Your task to perform on an android device: Open calendar and show me the second week of next month Image 0: 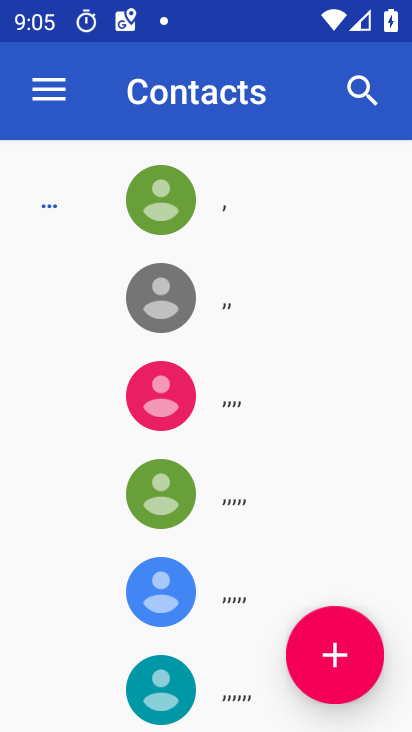
Step 0: press home button
Your task to perform on an android device: Open calendar and show me the second week of next month Image 1: 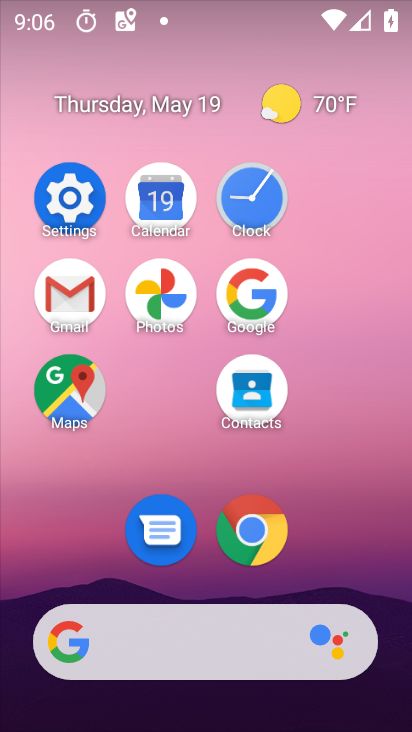
Step 1: click (152, 219)
Your task to perform on an android device: Open calendar and show me the second week of next month Image 2: 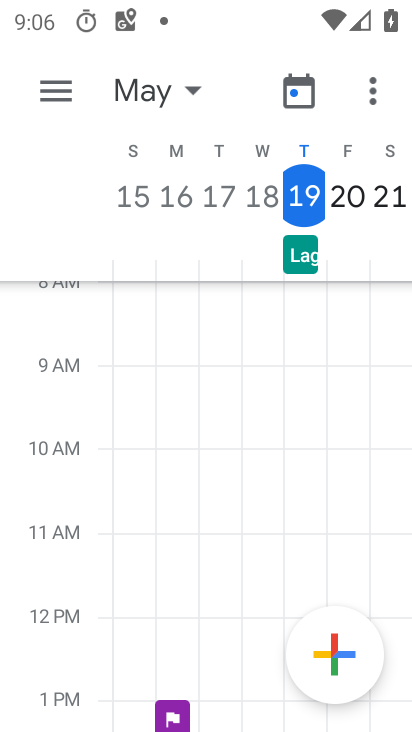
Step 2: click (60, 105)
Your task to perform on an android device: Open calendar and show me the second week of next month Image 3: 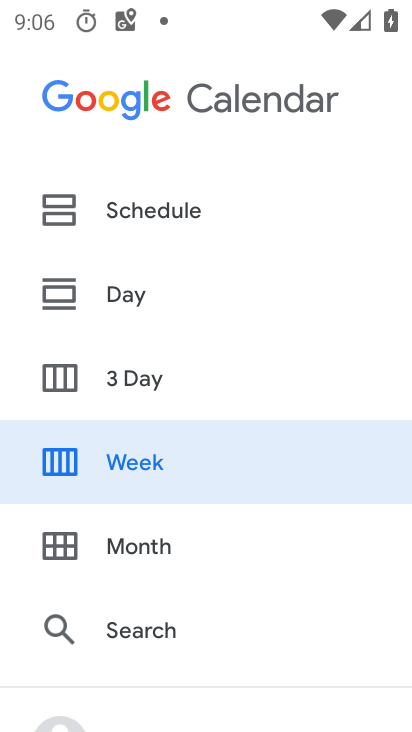
Step 3: click (228, 444)
Your task to perform on an android device: Open calendar and show me the second week of next month Image 4: 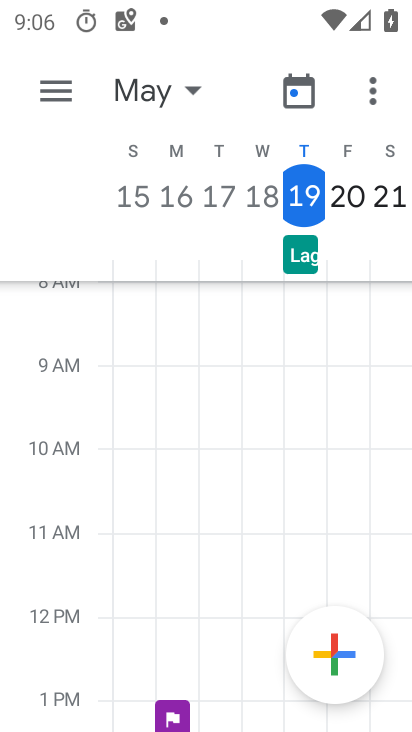
Step 4: click (180, 95)
Your task to perform on an android device: Open calendar and show me the second week of next month Image 5: 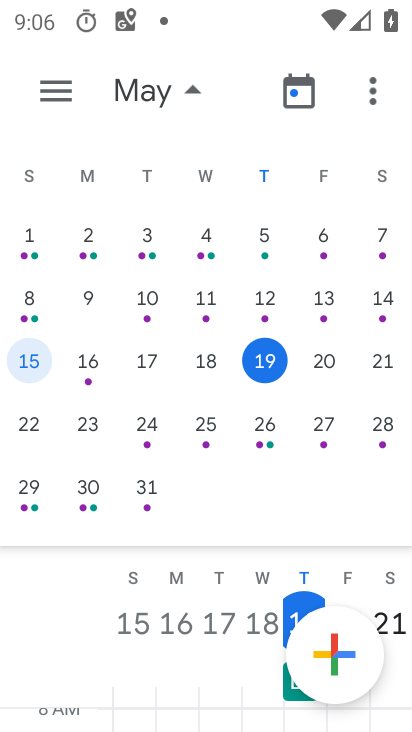
Step 5: drag from (369, 333) to (6, 257)
Your task to perform on an android device: Open calendar and show me the second week of next month Image 6: 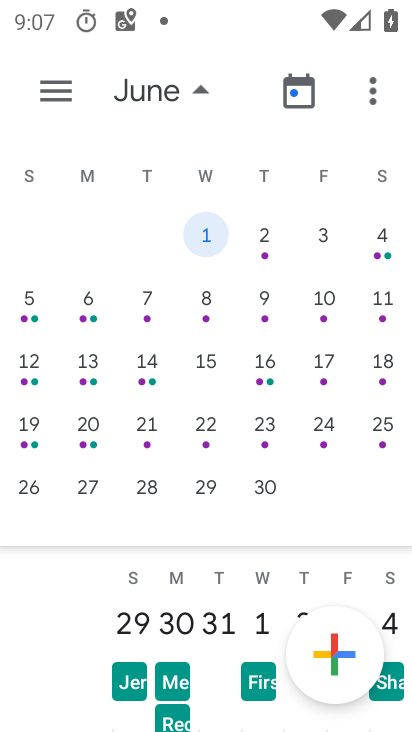
Step 6: click (70, 95)
Your task to perform on an android device: Open calendar and show me the second week of next month Image 7: 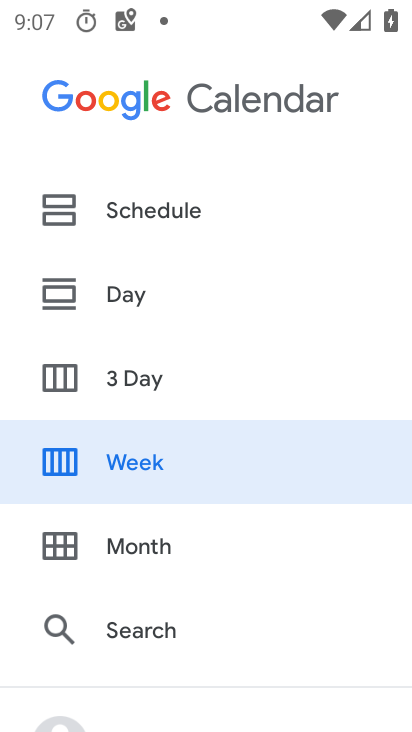
Step 7: click (154, 447)
Your task to perform on an android device: Open calendar and show me the second week of next month Image 8: 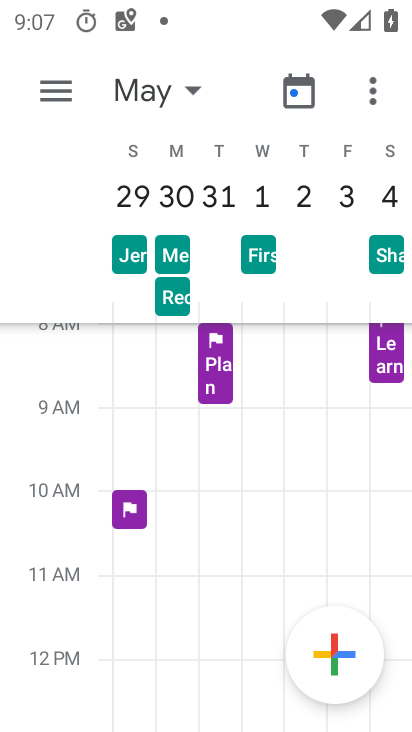
Step 8: task complete